Your task to perform on an android device: move a message to another label in the gmail app Image 0: 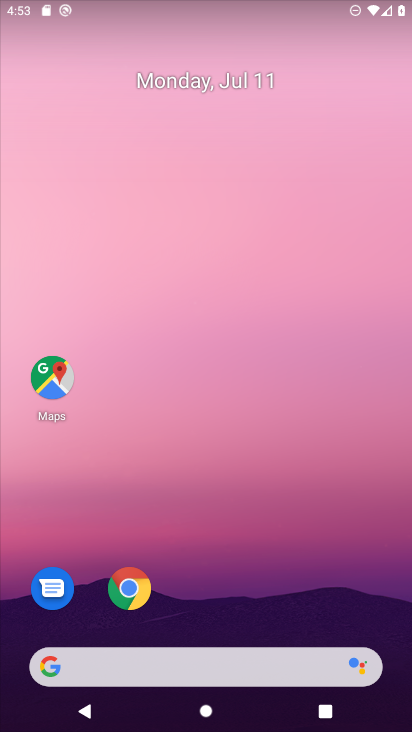
Step 0: press home button
Your task to perform on an android device: move a message to another label in the gmail app Image 1: 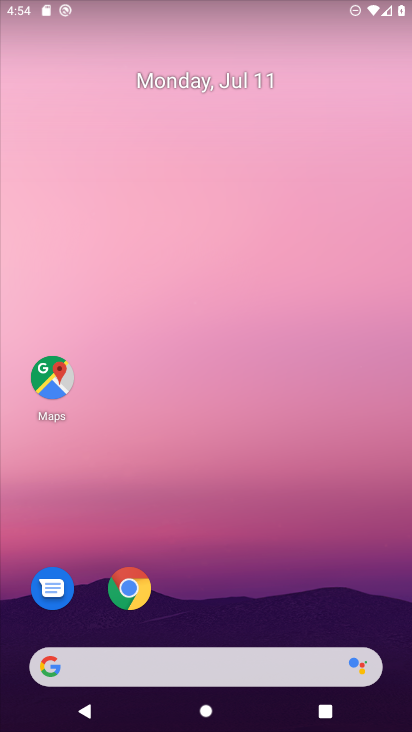
Step 1: drag from (241, 636) to (268, 7)
Your task to perform on an android device: move a message to another label in the gmail app Image 2: 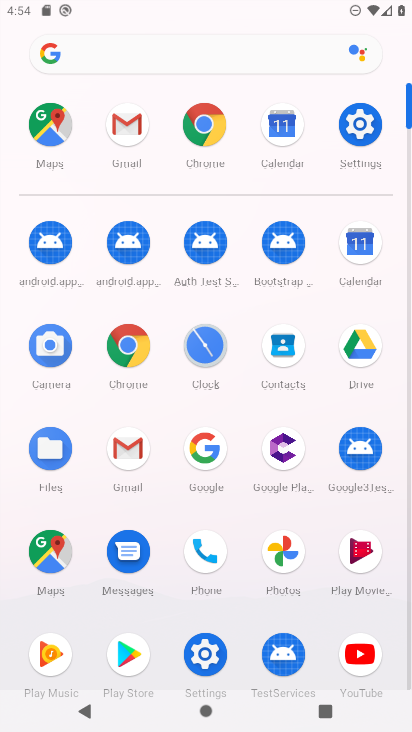
Step 2: click (124, 120)
Your task to perform on an android device: move a message to another label in the gmail app Image 3: 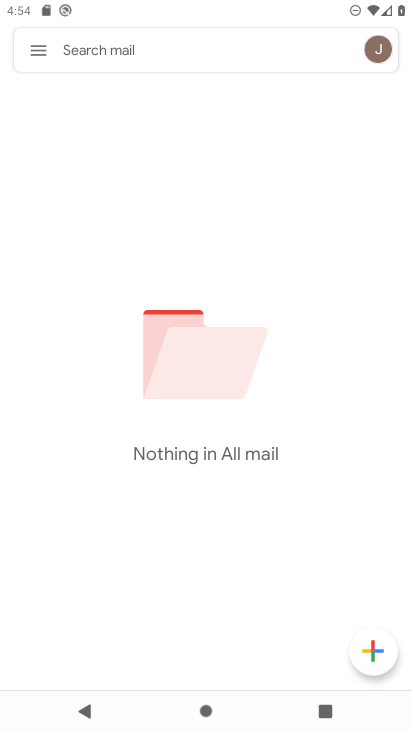
Step 3: click (41, 43)
Your task to perform on an android device: move a message to another label in the gmail app Image 4: 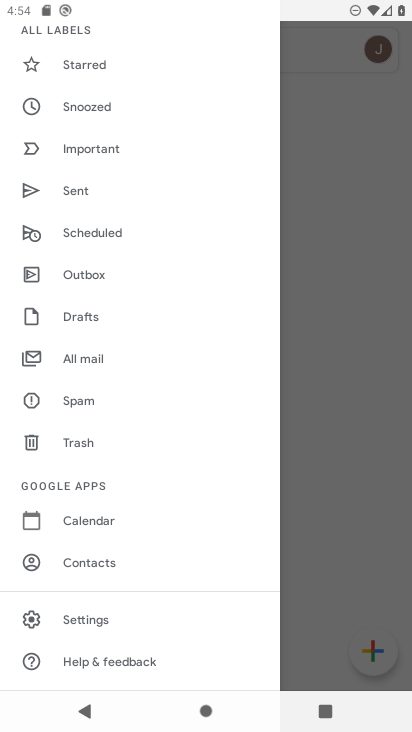
Step 4: click (77, 360)
Your task to perform on an android device: move a message to another label in the gmail app Image 5: 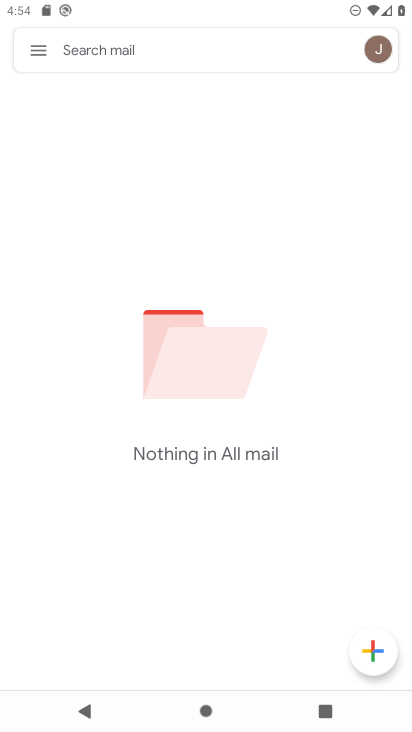
Step 5: task complete